Your task to perform on an android device: What's on my calendar today? Image 0: 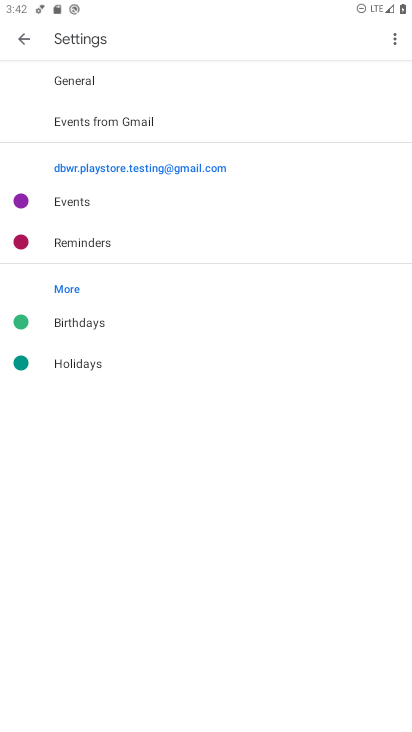
Step 0: press home button
Your task to perform on an android device: What's on my calendar today? Image 1: 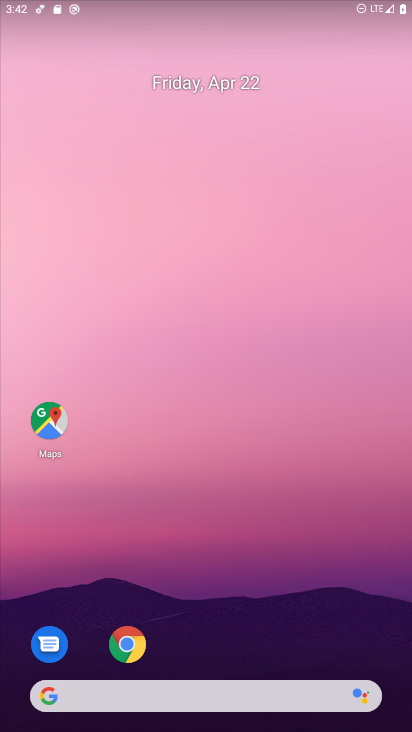
Step 1: drag from (207, 489) to (172, 166)
Your task to perform on an android device: What's on my calendar today? Image 2: 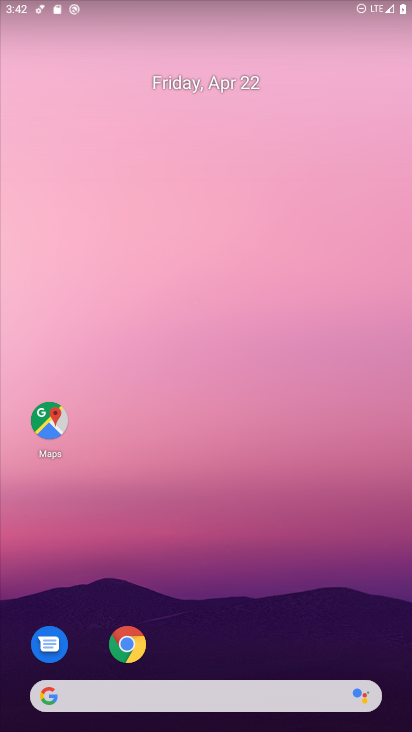
Step 2: drag from (256, 527) to (244, 62)
Your task to perform on an android device: What's on my calendar today? Image 3: 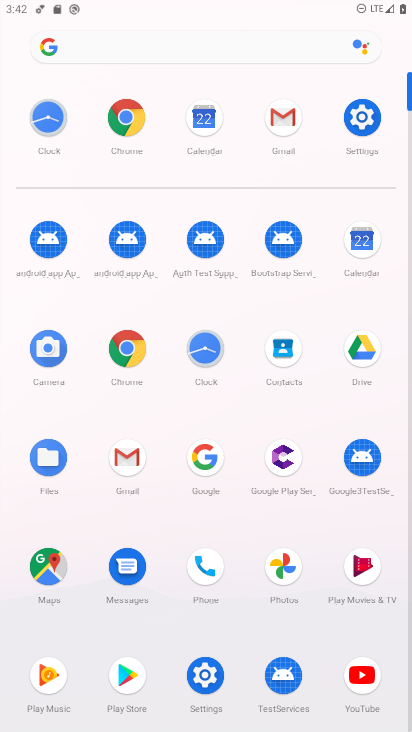
Step 3: click (361, 243)
Your task to perform on an android device: What's on my calendar today? Image 4: 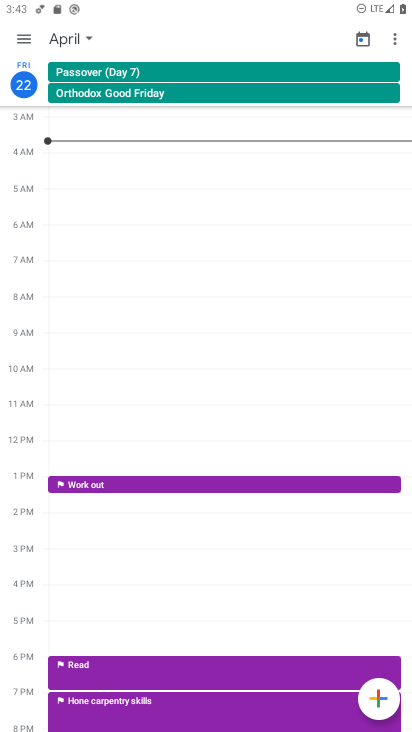
Step 4: click (25, 87)
Your task to perform on an android device: What's on my calendar today? Image 5: 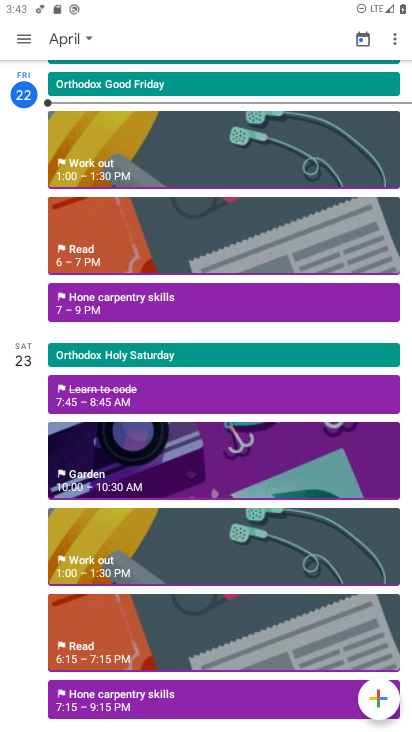
Step 5: click (26, 86)
Your task to perform on an android device: What's on my calendar today? Image 6: 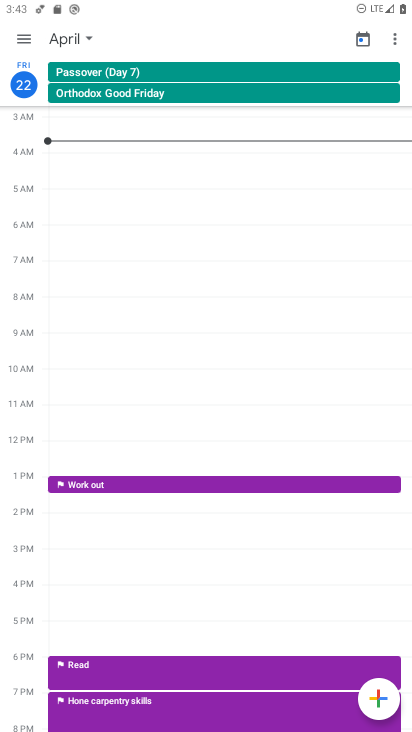
Step 6: click (70, 41)
Your task to perform on an android device: What's on my calendar today? Image 7: 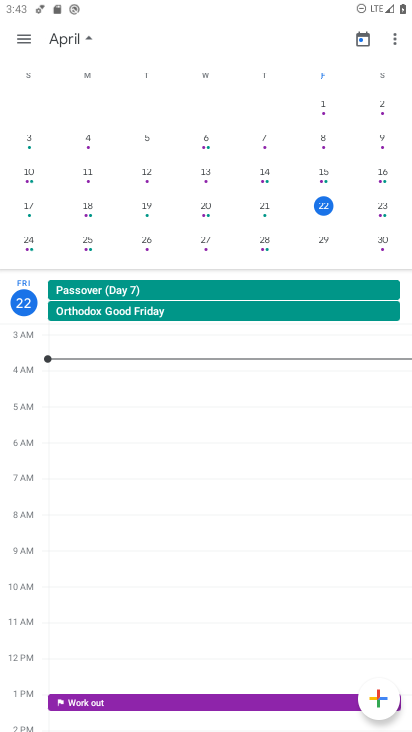
Step 7: click (316, 207)
Your task to perform on an android device: What's on my calendar today? Image 8: 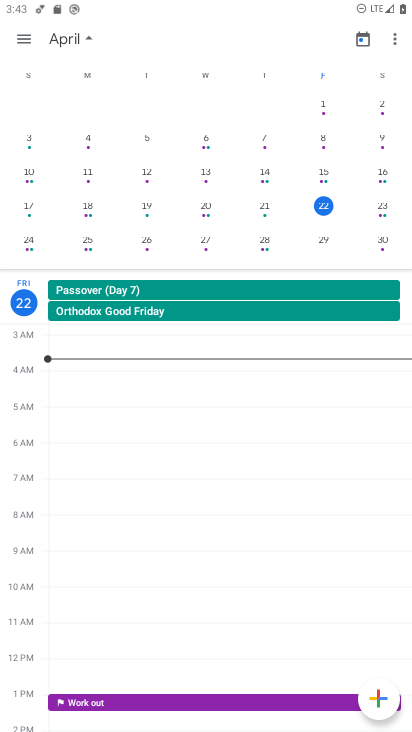
Step 8: task complete